Your task to perform on an android device: Go to Maps Image 0: 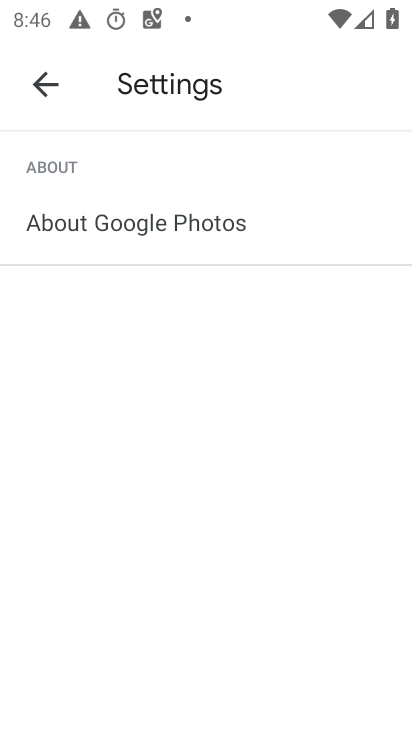
Step 0: press home button
Your task to perform on an android device: Go to Maps Image 1: 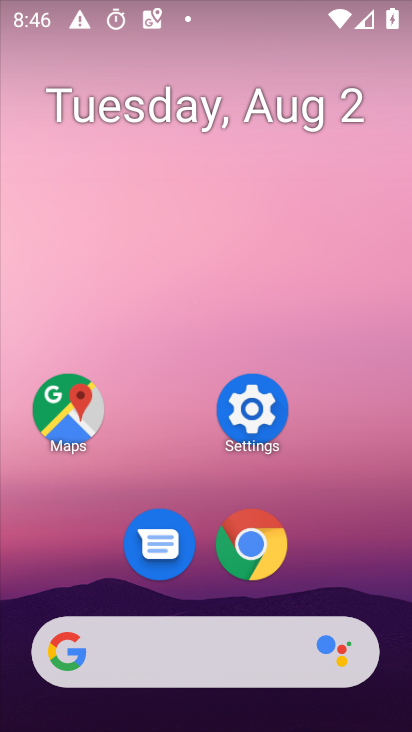
Step 1: click (74, 421)
Your task to perform on an android device: Go to Maps Image 2: 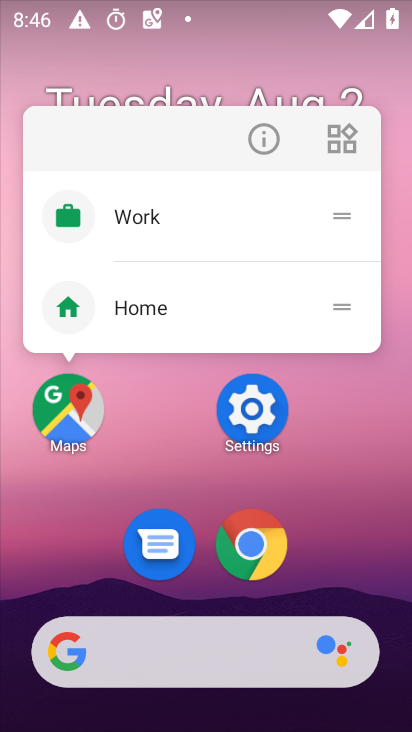
Step 2: click (74, 421)
Your task to perform on an android device: Go to Maps Image 3: 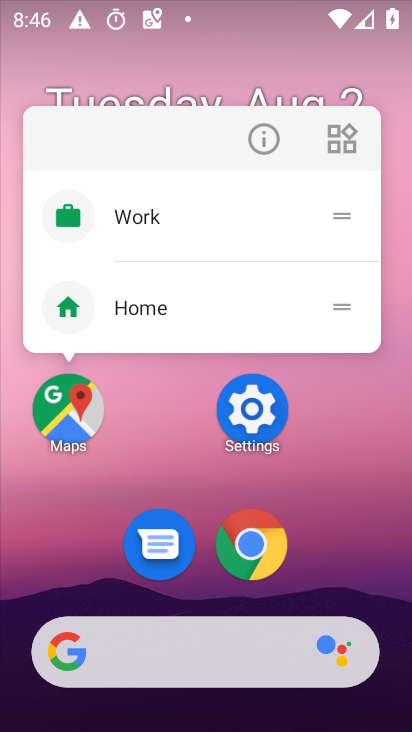
Step 3: click (64, 410)
Your task to perform on an android device: Go to Maps Image 4: 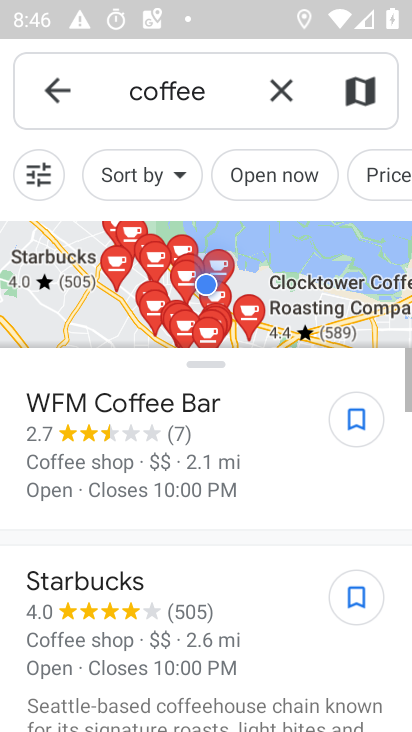
Step 4: click (59, 88)
Your task to perform on an android device: Go to Maps Image 5: 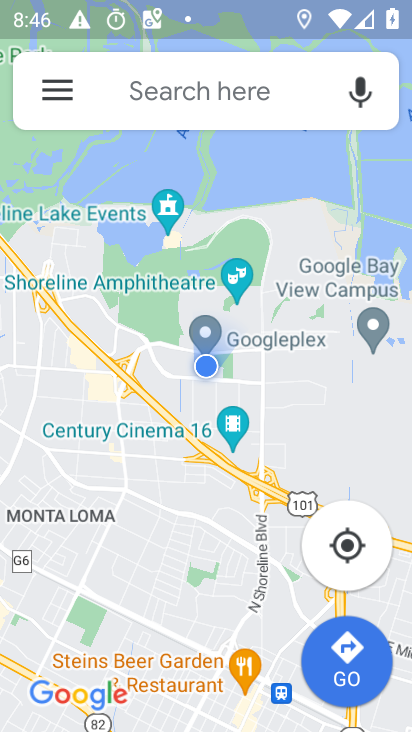
Step 5: task complete